Your task to perform on an android device: turn on sleep mode Image 0: 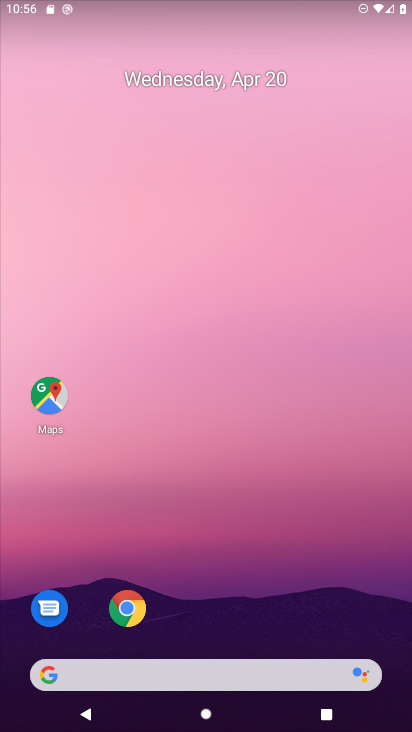
Step 0: drag from (290, 571) to (300, 170)
Your task to perform on an android device: turn on sleep mode Image 1: 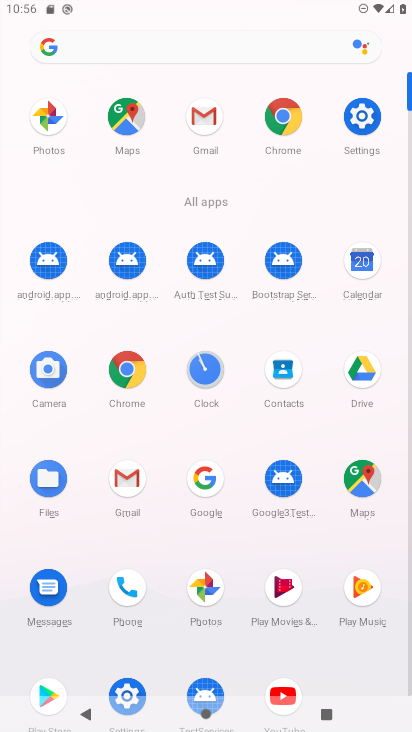
Step 1: click (365, 127)
Your task to perform on an android device: turn on sleep mode Image 2: 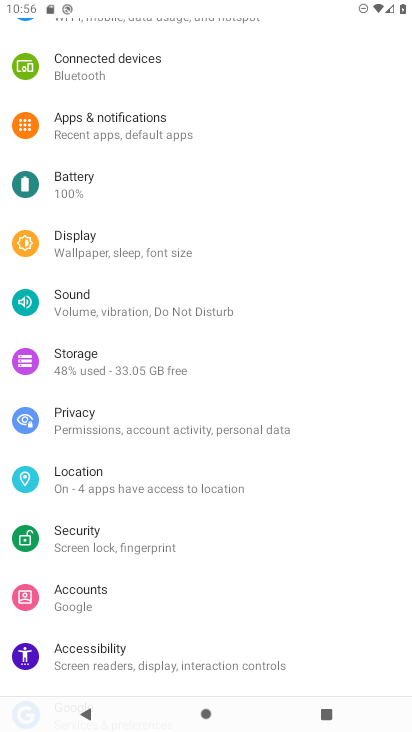
Step 2: click (164, 240)
Your task to perform on an android device: turn on sleep mode Image 3: 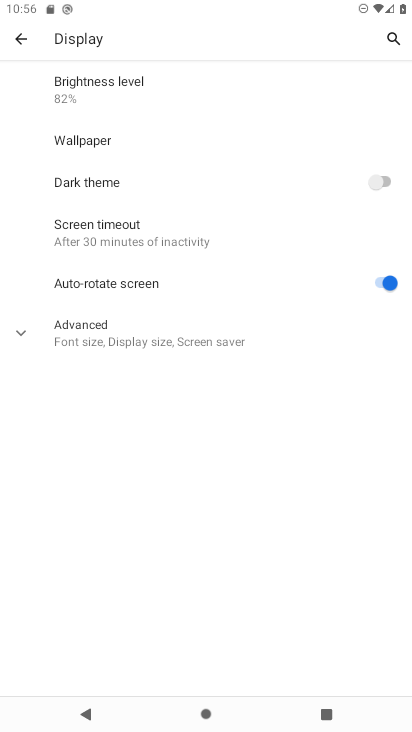
Step 3: click (23, 339)
Your task to perform on an android device: turn on sleep mode Image 4: 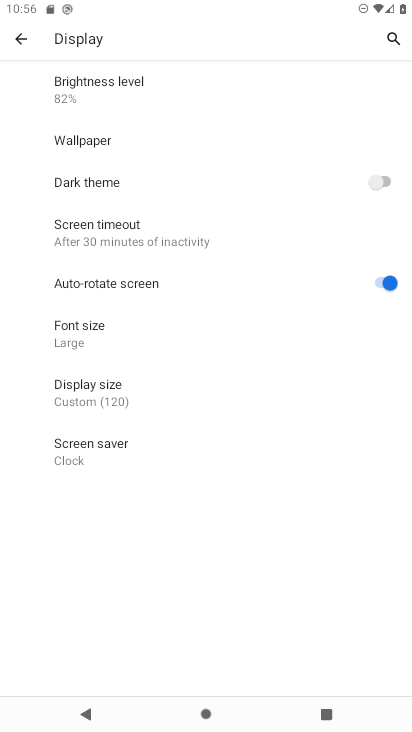
Step 4: task complete